Your task to perform on an android device: turn off priority inbox in the gmail app Image 0: 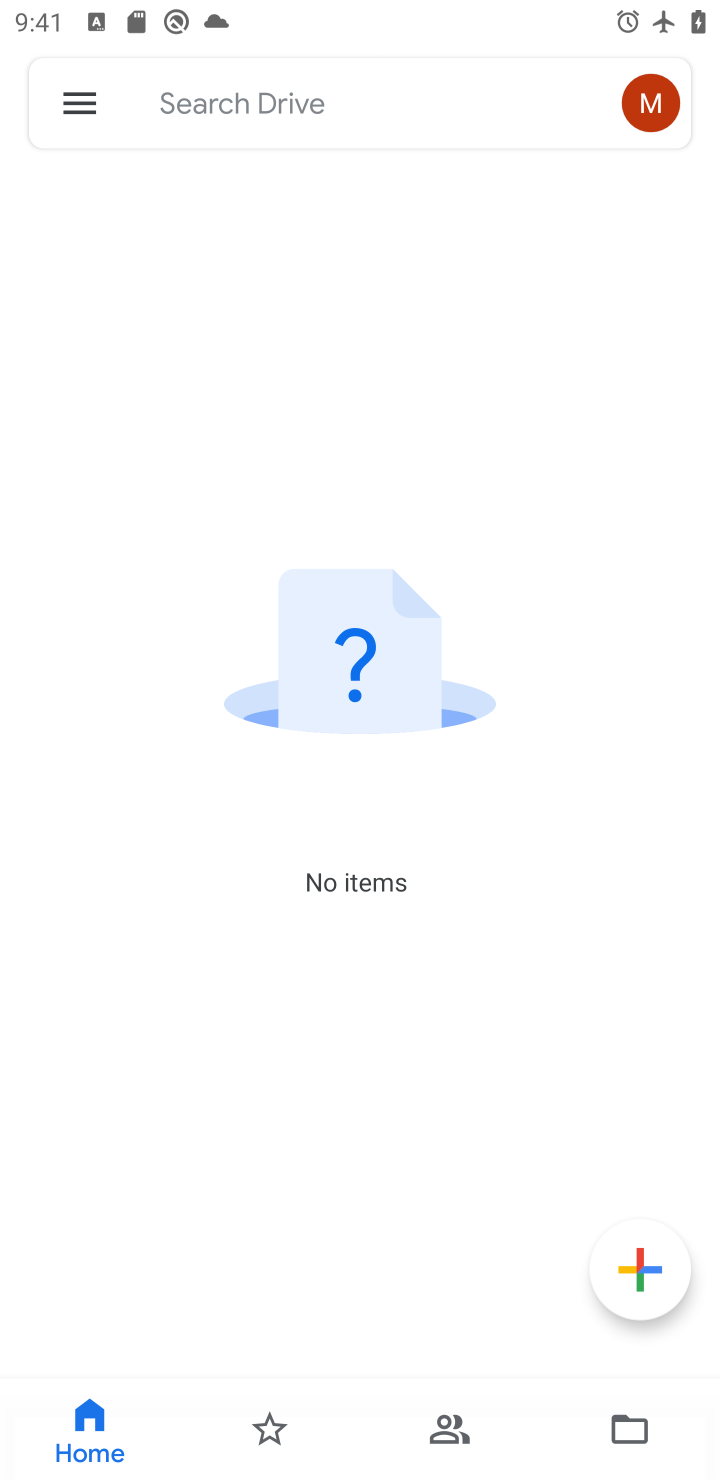
Step 0: press home button
Your task to perform on an android device: turn off priority inbox in the gmail app Image 1: 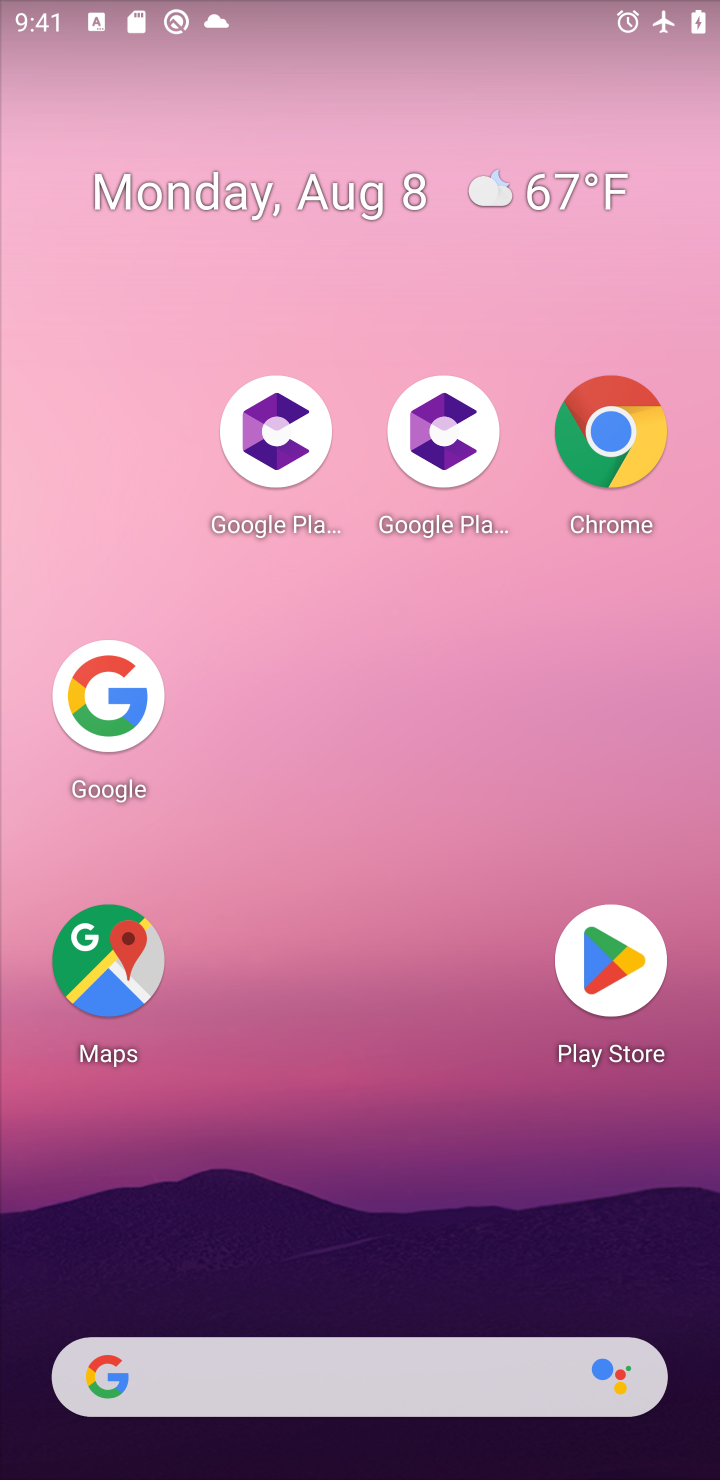
Step 1: drag from (283, 1221) to (115, 175)
Your task to perform on an android device: turn off priority inbox in the gmail app Image 2: 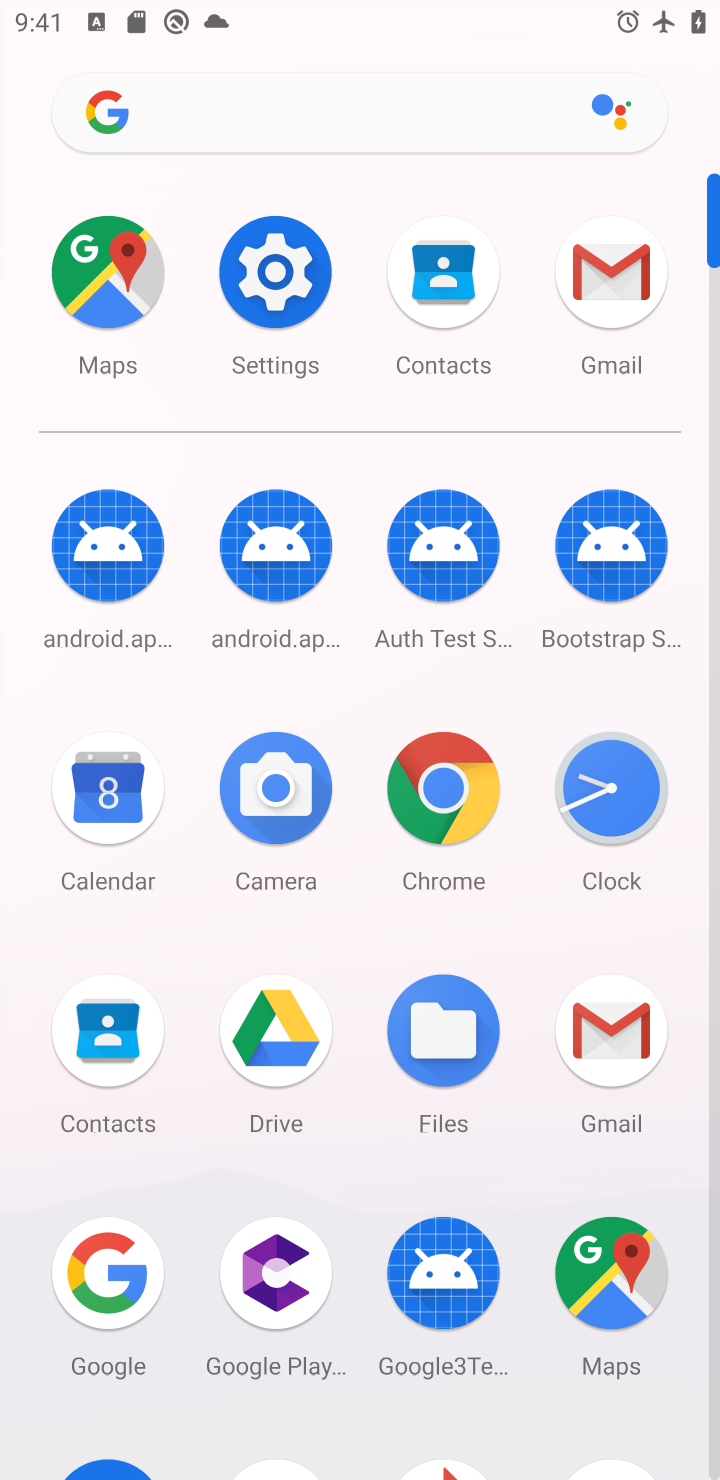
Step 2: click (614, 285)
Your task to perform on an android device: turn off priority inbox in the gmail app Image 3: 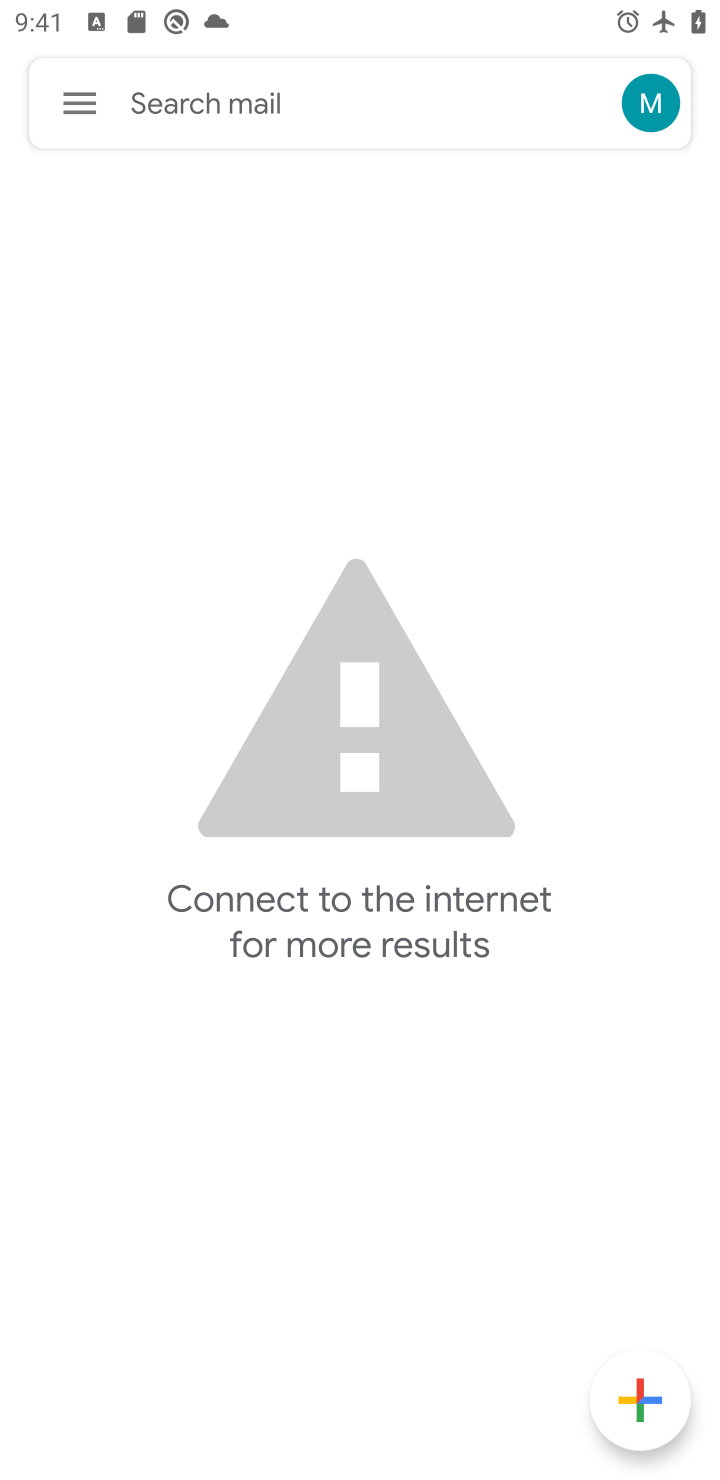
Step 3: click (81, 102)
Your task to perform on an android device: turn off priority inbox in the gmail app Image 4: 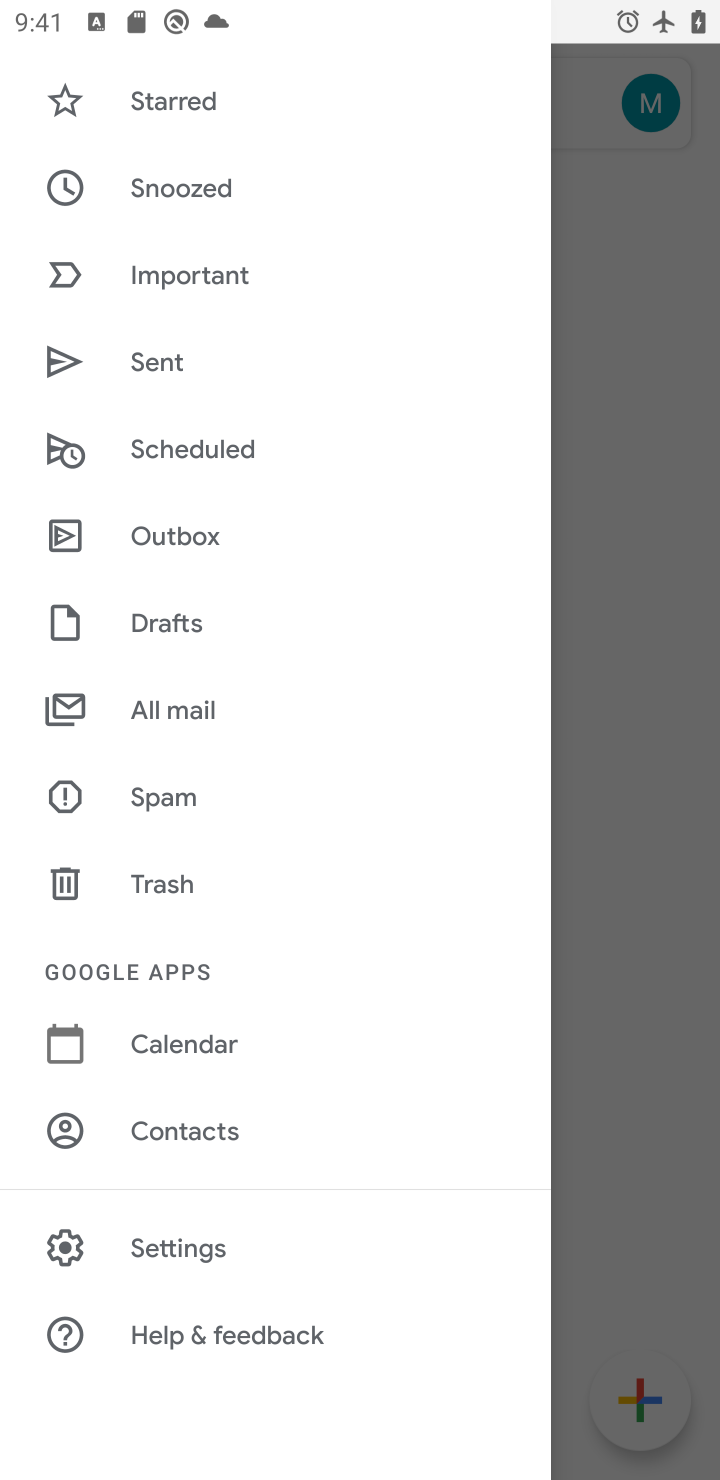
Step 4: click (118, 1237)
Your task to perform on an android device: turn off priority inbox in the gmail app Image 5: 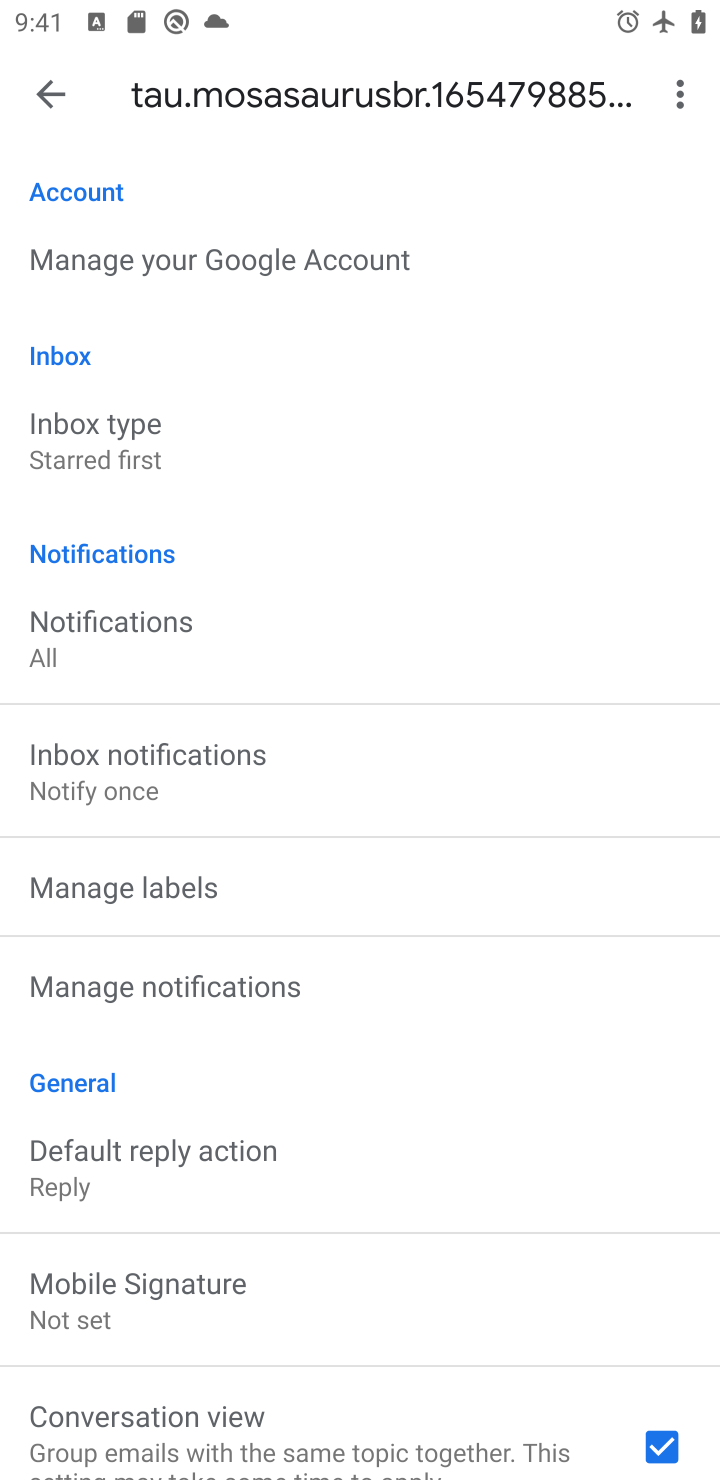
Step 5: click (265, 453)
Your task to perform on an android device: turn off priority inbox in the gmail app Image 6: 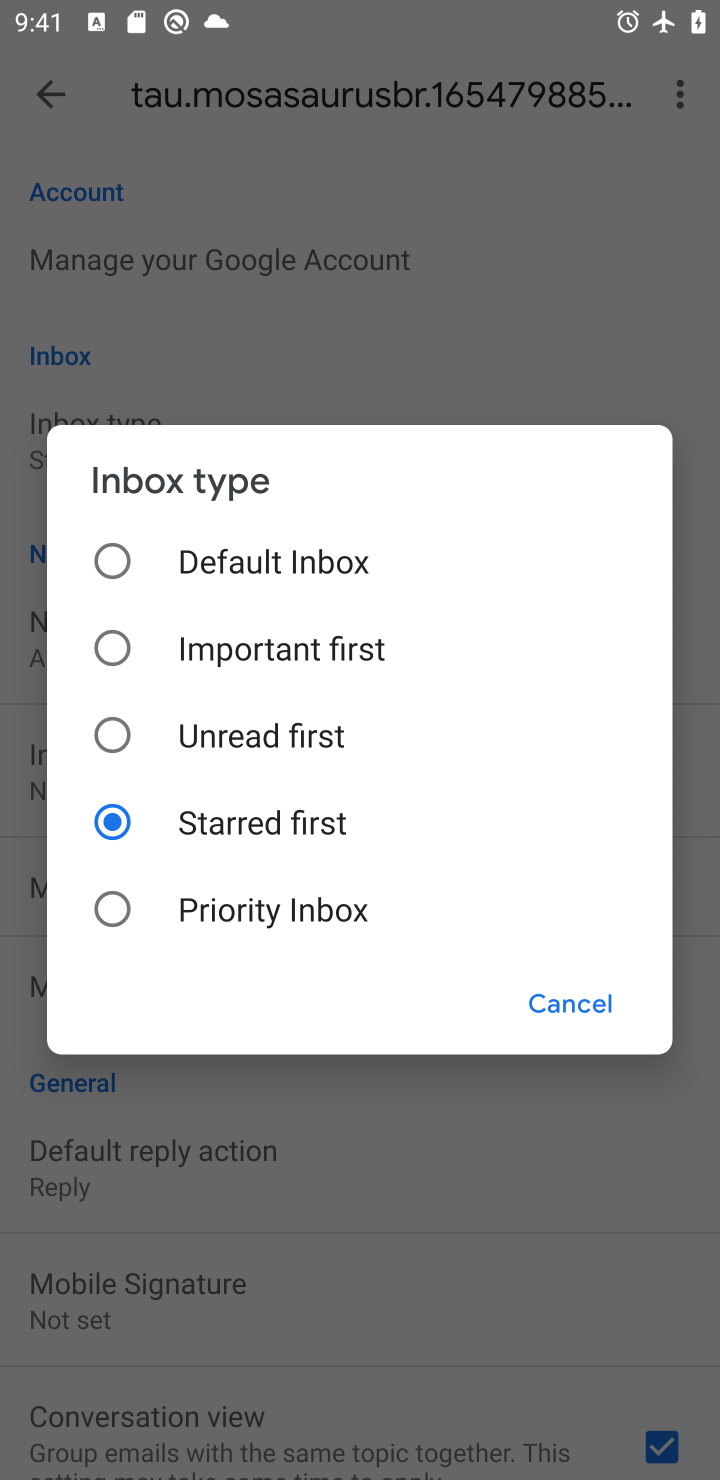
Step 6: task complete